Your task to perform on an android device: create a new album in the google photos Image 0: 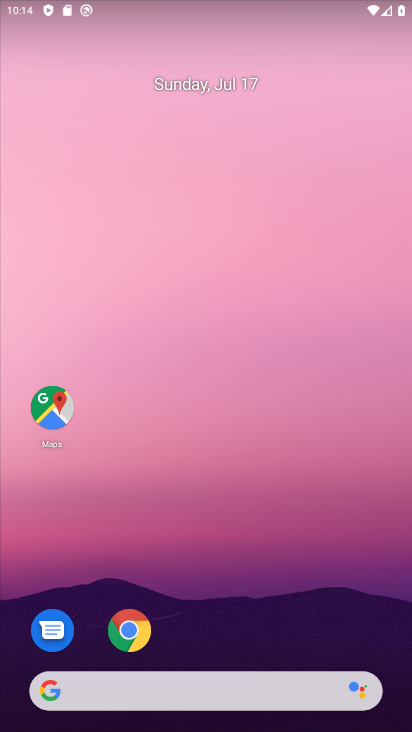
Step 0: drag from (384, 657) to (335, 221)
Your task to perform on an android device: create a new album in the google photos Image 1: 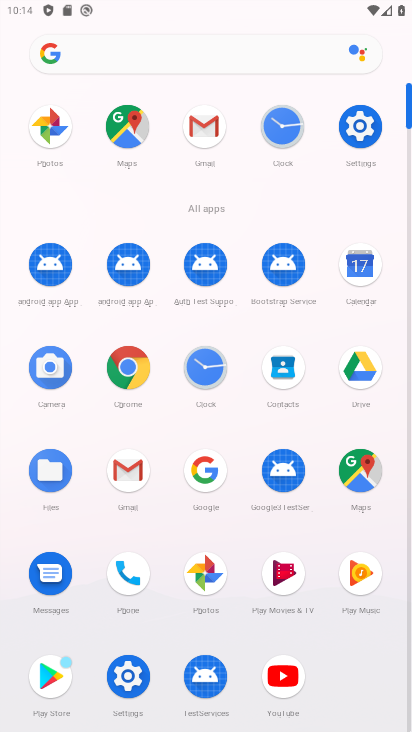
Step 1: click (206, 573)
Your task to perform on an android device: create a new album in the google photos Image 2: 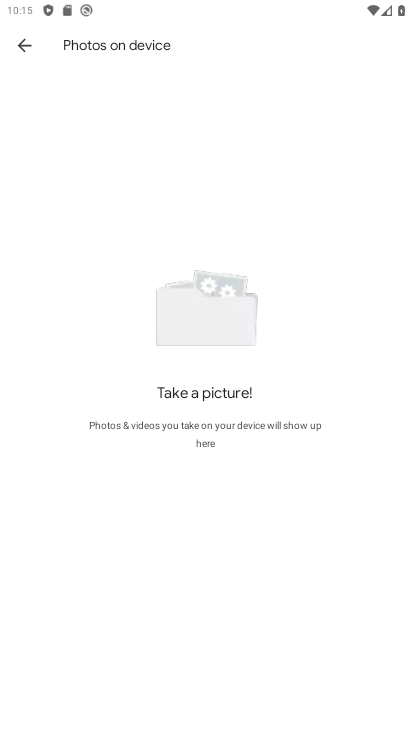
Step 2: press back button
Your task to perform on an android device: create a new album in the google photos Image 3: 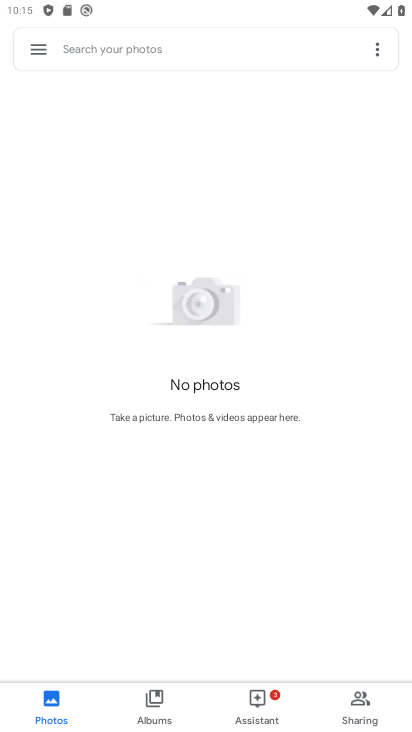
Step 3: click (151, 700)
Your task to perform on an android device: create a new album in the google photos Image 4: 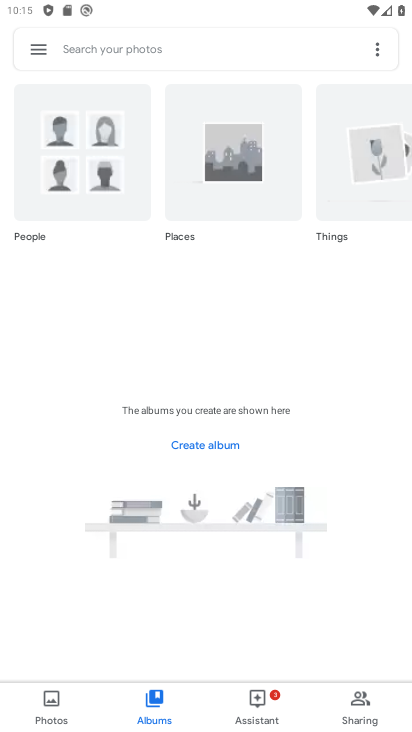
Step 4: click (207, 439)
Your task to perform on an android device: create a new album in the google photos Image 5: 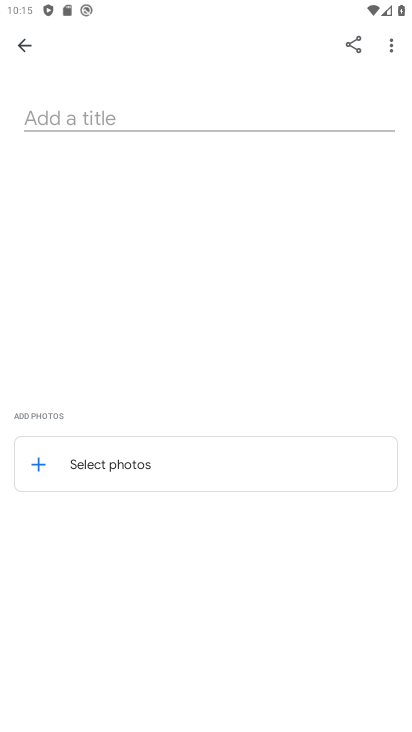
Step 5: click (102, 112)
Your task to perform on an android device: create a new album in the google photos Image 6: 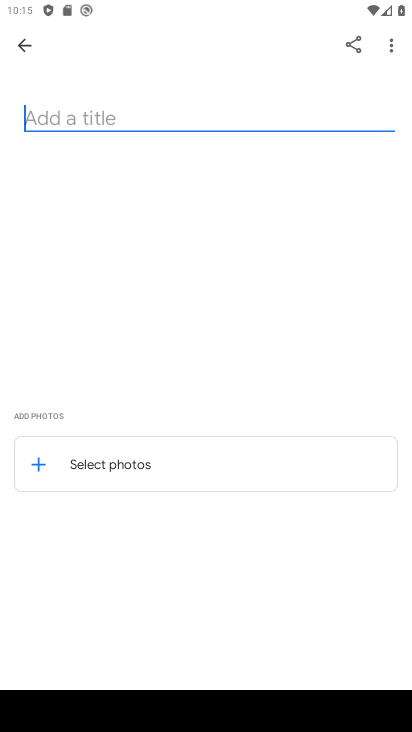
Step 6: type "kjhgf"
Your task to perform on an android device: create a new album in the google photos Image 7: 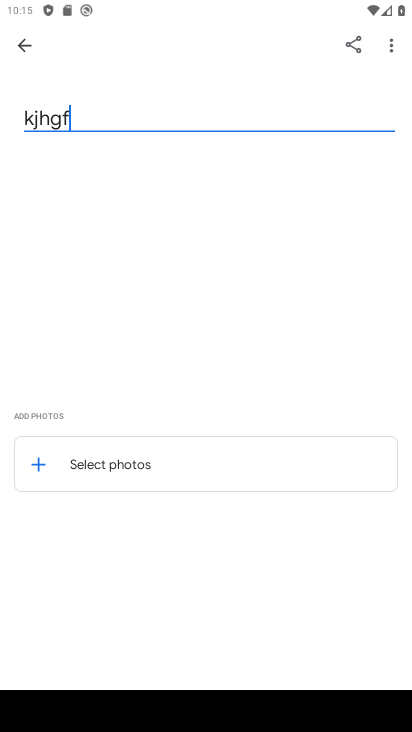
Step 7: click (37, 460)
Your task to perform on an android device: create a new album in the google photos Image 8: 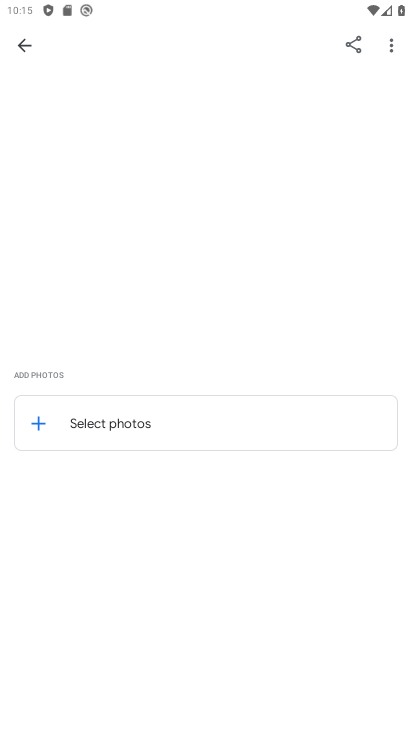
Step 8: click (41, 421)
Your task to perform on an android device: create a new album in the google photos Image 9: 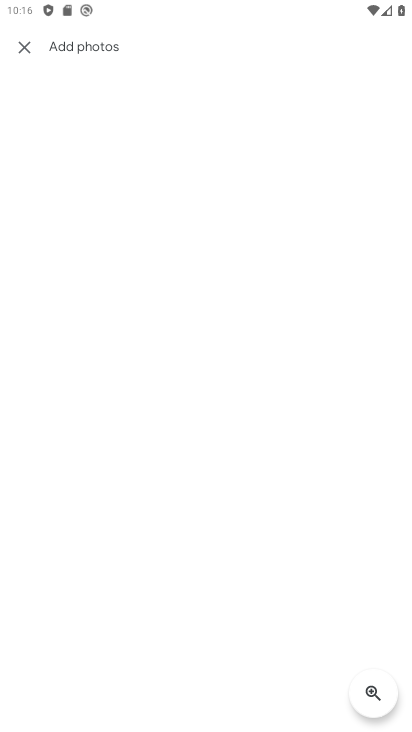
Step 9: task complete